Your task to perform on an android device: star an email in the gmail app Image 0: 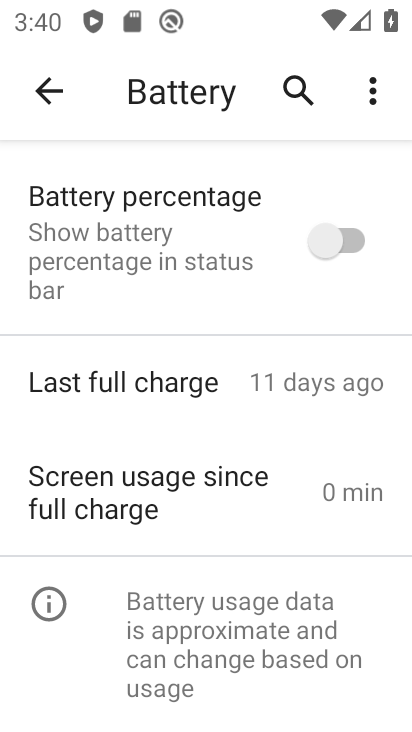
Step 0: press home button
Your task to perform on an android device: star an email in the gmail app Image 1: 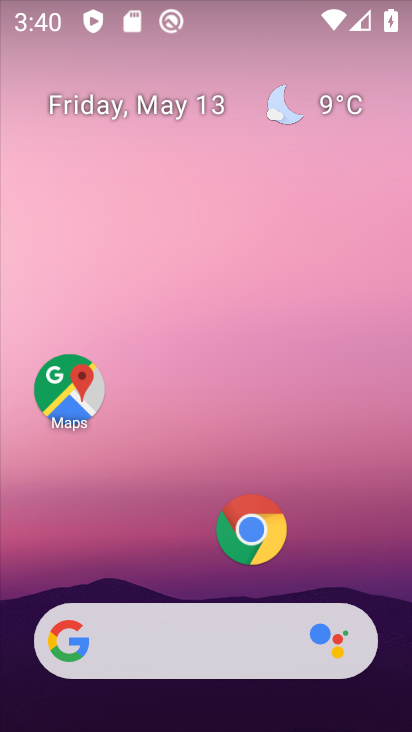
Step 1: drag from (191, 582) to (221, 178)
Your task to perform on an android device: star an email in the gmail app Image 2: 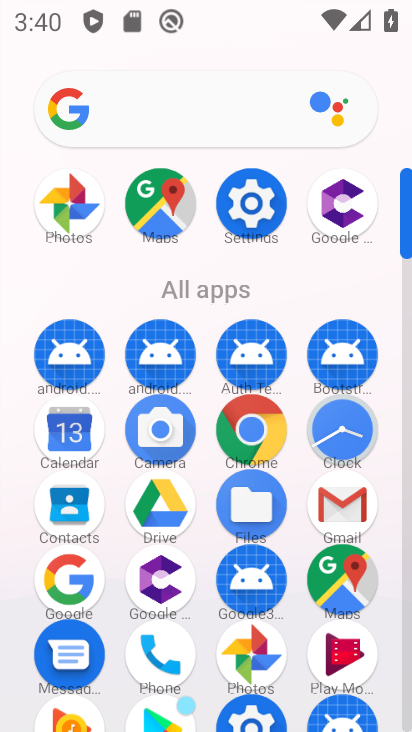
Step 2: click (342, 491)
Your task to perform on an android device: star an email in the gmail app Image 3: 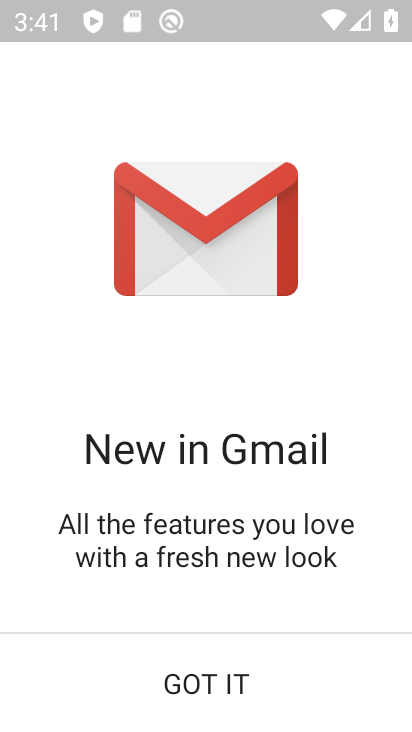
Step 3: click (214, 683)
Your task to perform on an android device: star an email in the gmail app Image 4: 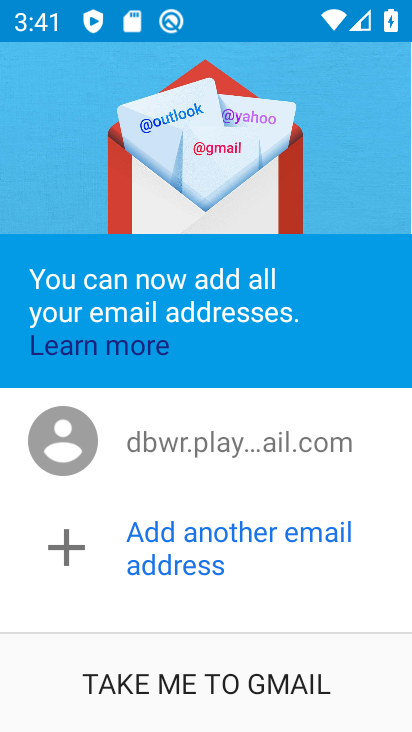
Step 4: click (214, 675)
Your task to perform on an android device: star an email in the gmail app Image 5: 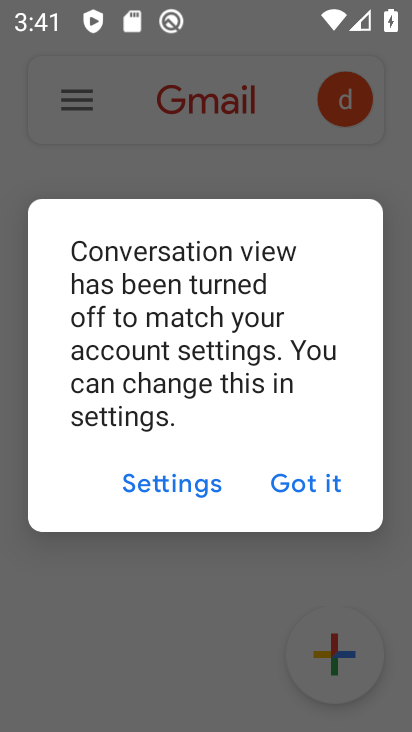
Step 5: click (304, 486)
Your task to perform on an android device: star an email in the gmail app Image 6: 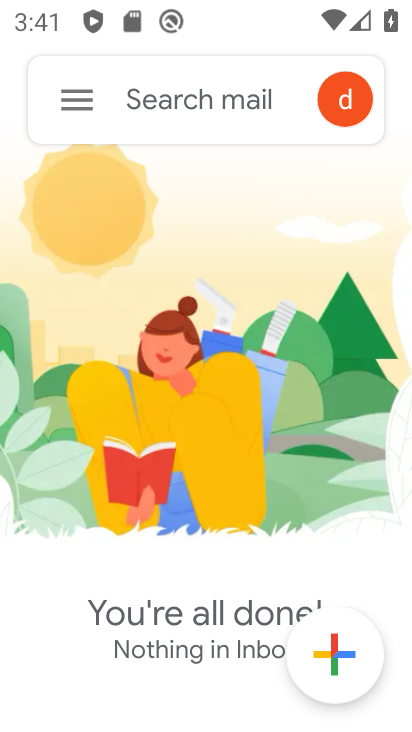
Step 6: click (70, 98)
Your task to perform on an android device: star an email in the gmail app Image 7: 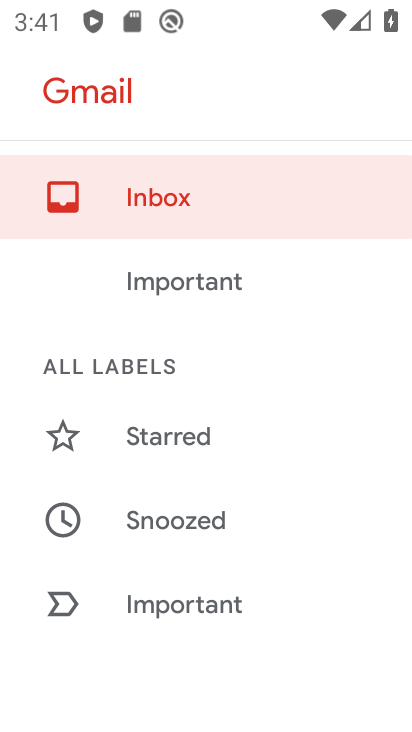
Step 7: task complete